Your task to perform on an android device: Open settings Image 0: 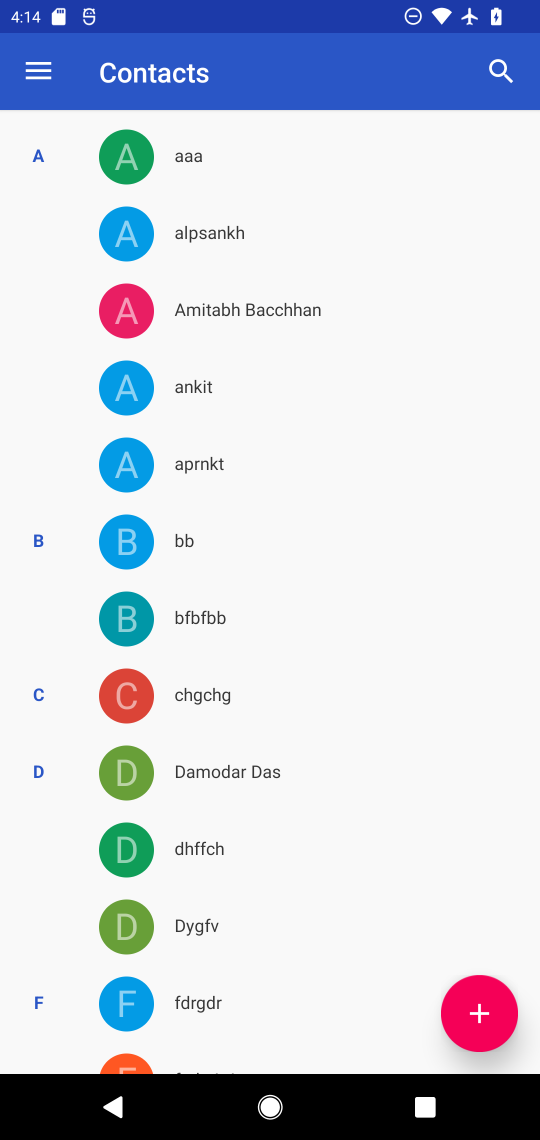
Step 0: press home button
Your task to perform on an android device: Open settings Image 1: 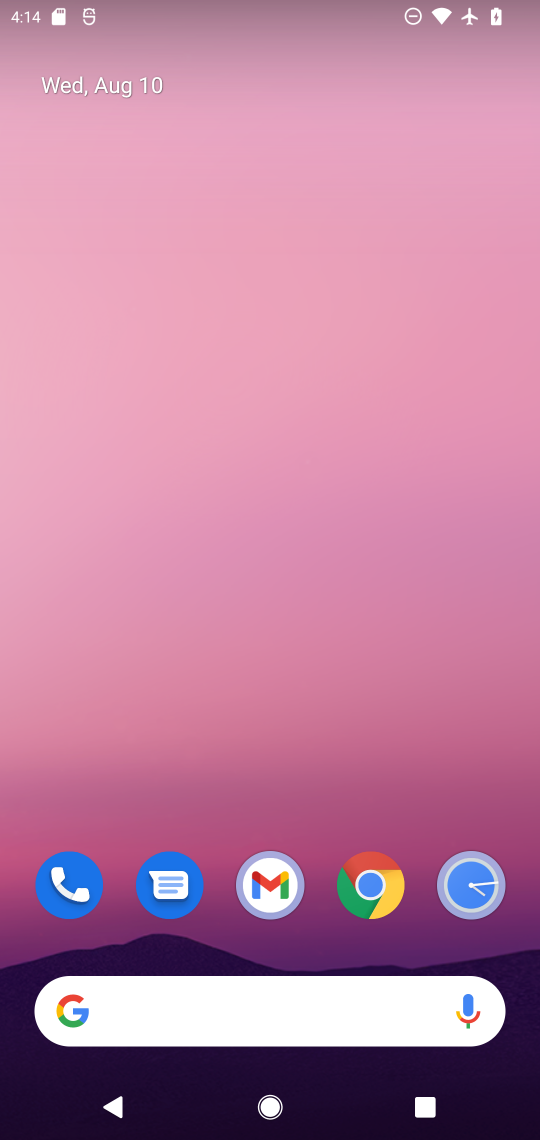
Step 1: drag from (310, 949) to (242, 297)
Your task to perform on an android device: Open settings Image 2: 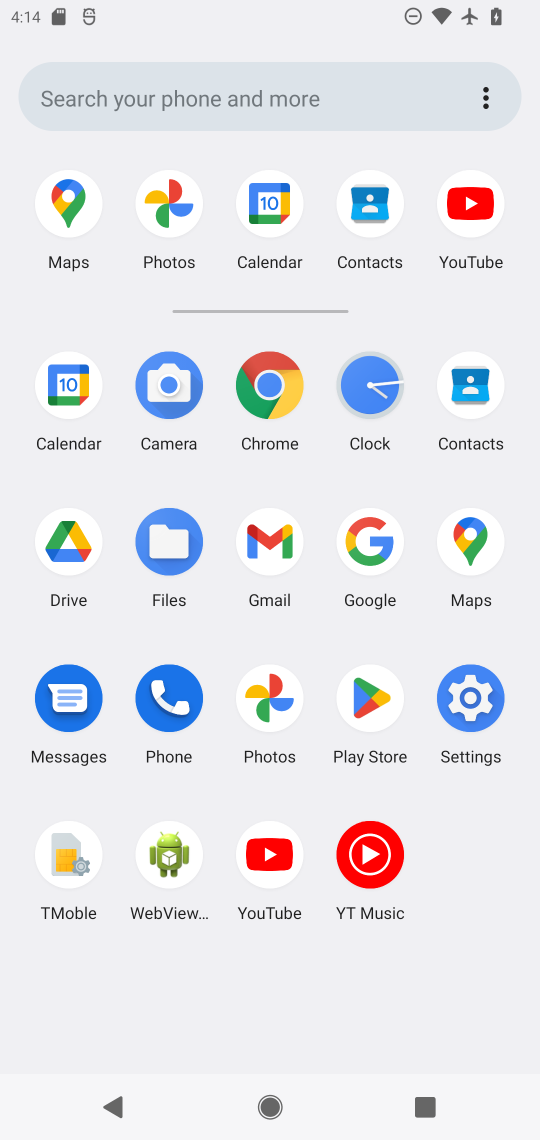
Step 2: click (471, 695)
Your task to perform on an android device: Open settings Image 3: 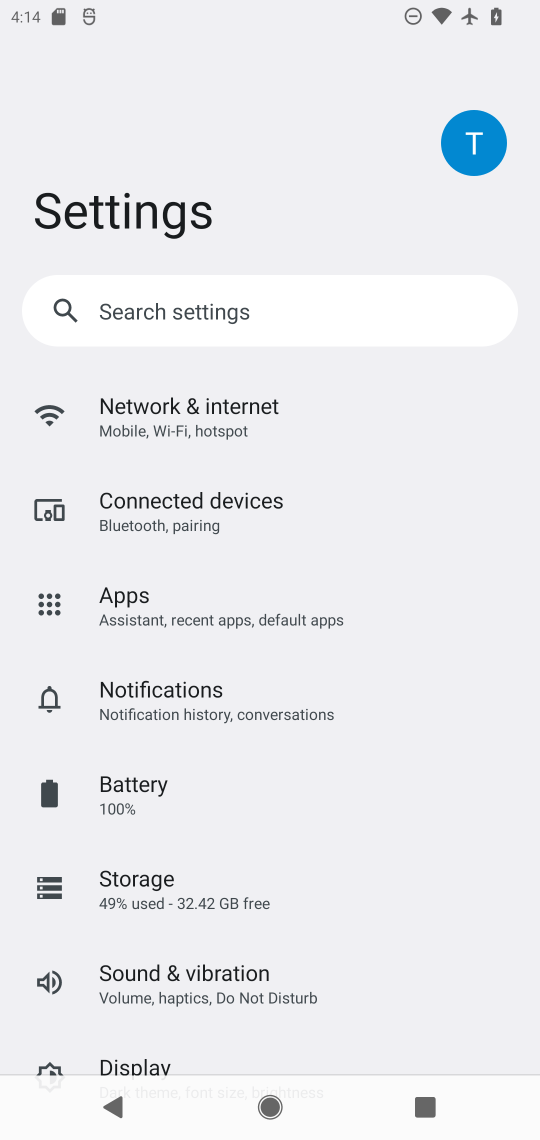
Step 3: task complete